Your task to perform on an android device: Go to settings Image 0: 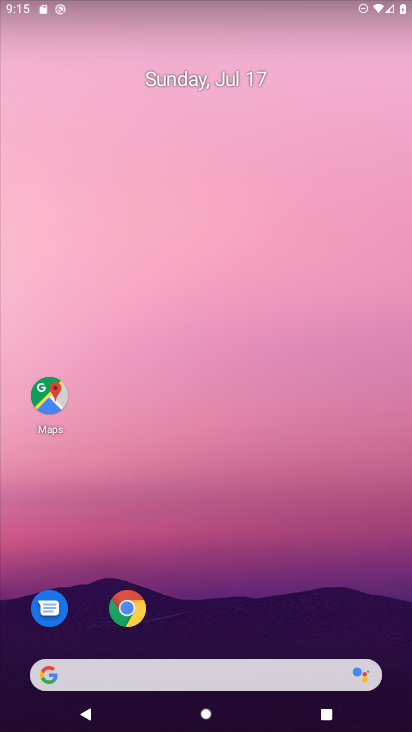
Step 0: drag from (213, 674) to (147, 131)
Your task to perform on an android device: Go to settings Image 1: 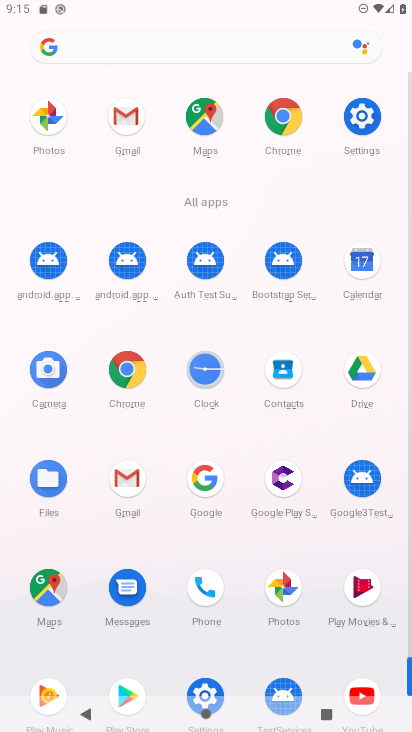
Step 1: click (363, 119)
Your task to perform on an android device: Go to settings Image 2: 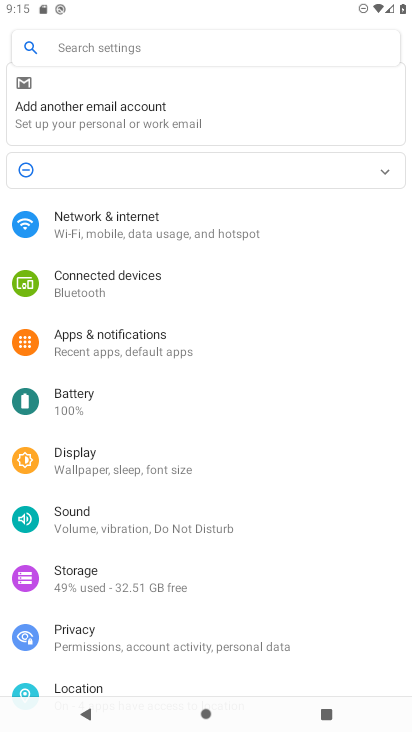
Step 2: task complete